Your task to perform on an android device: change the upload size in google photos Image 0: 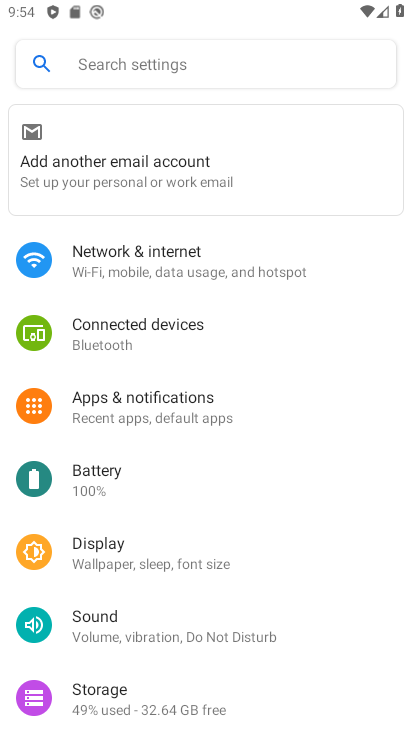
Step 0: press home button
Your task to perform on an android device: change the upload size in google photos Image 1: 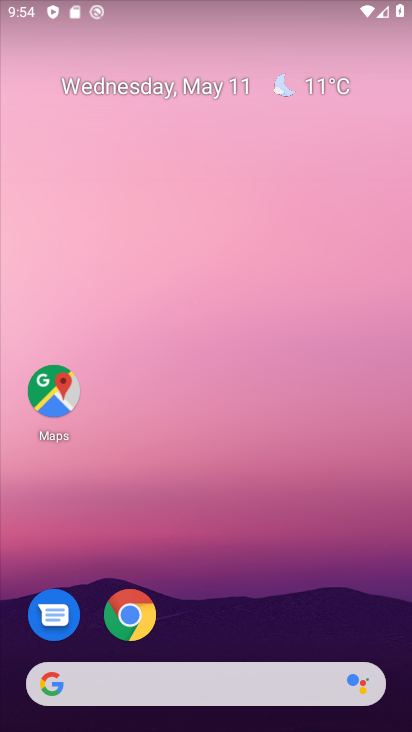
Step 1: drag from (321, 472) to (359, 60)
Your task to perform on an android device: change the upload size in google photos Image 2: 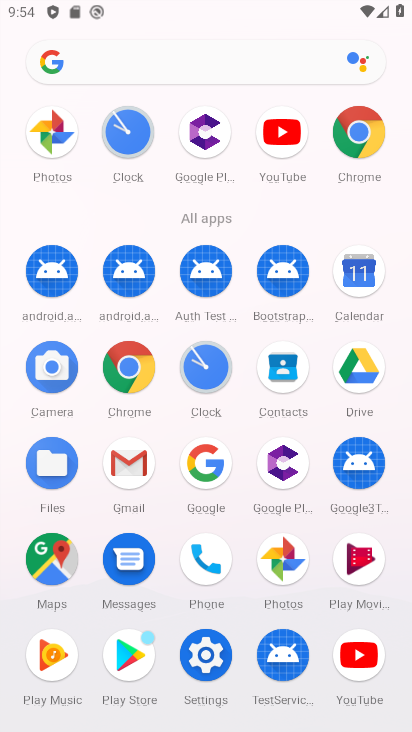
Step 2: click (290, 551)
Your task to perform on an android device: change the upload size in google photos Image 3: 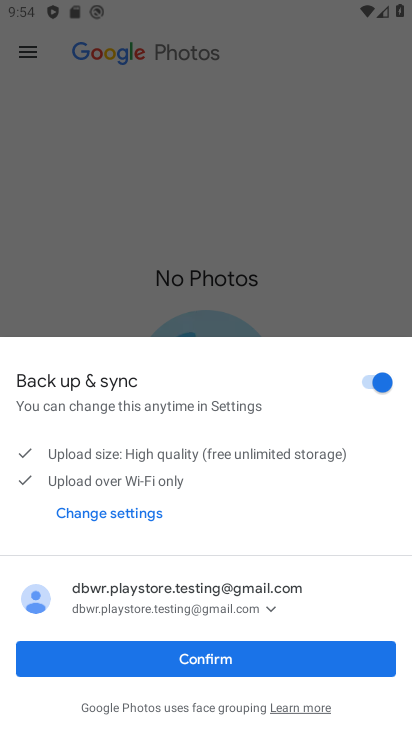
Step 3: click (195, 660)
Your task to perform on an android device: change the upload size in google photos Image 4: 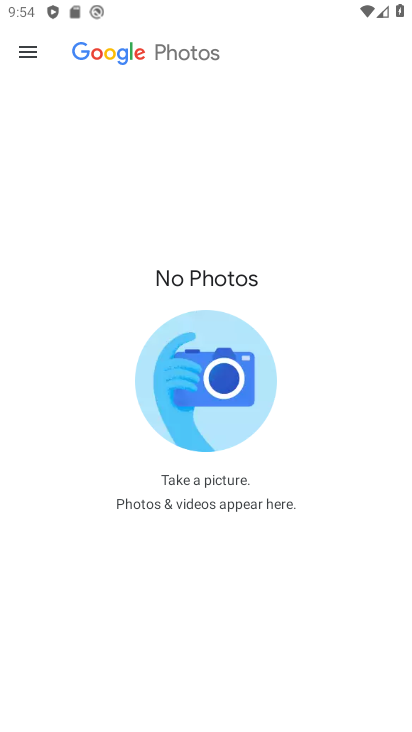
Step 4: click (28, 49)
Your task to perform on an android device: change the upload size in google photos Image 5: 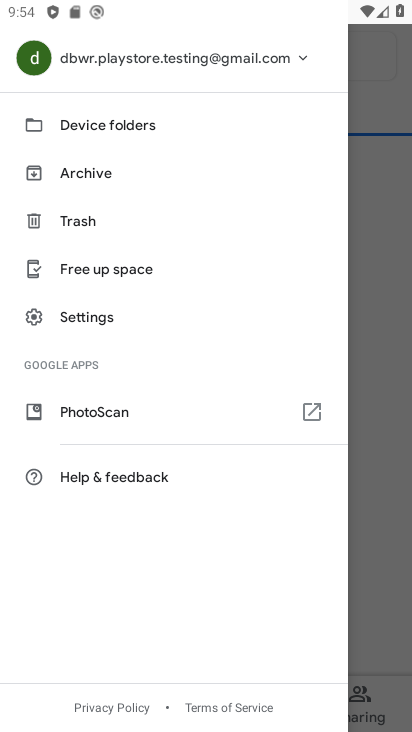
Step 5: click (123, 313)
Your task to perform on an android device: change the upload size in google photos Image 6: 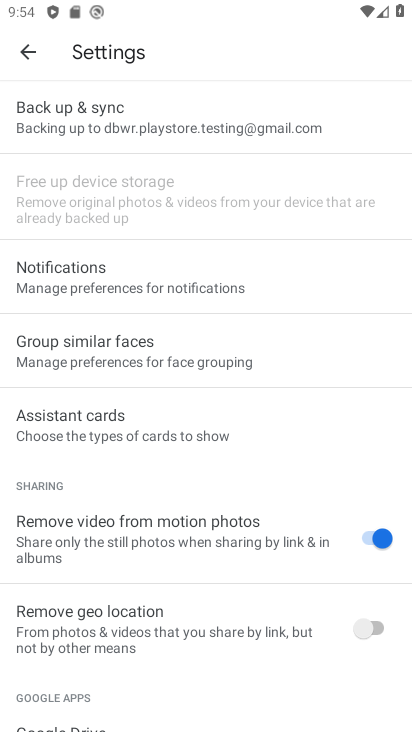
Step 6: click (250, 113)
Your task to perform on an android device: change the upload size in google photos Image 7: 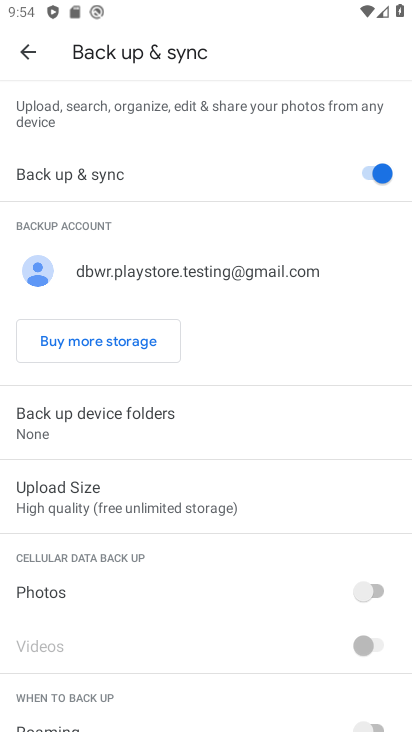
Step 7: click (140, 505)
Your task to perform on an android device: change the upload size in google photos Image 8: 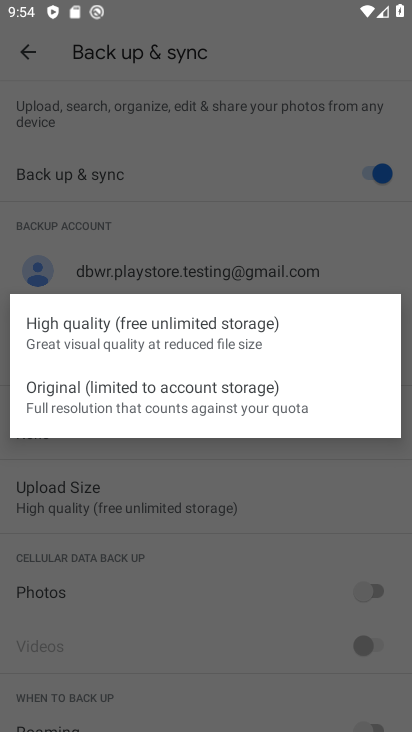
Step 8: click (151, 389)
Your task to perform on an android device: change the upload size in google photos Image 9: 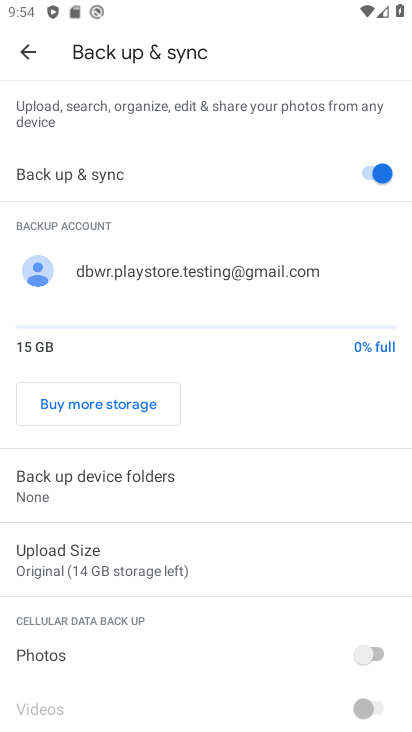
Step 9: task complete